Your task to perform on an android device: Open Yahoo.com Image 0: 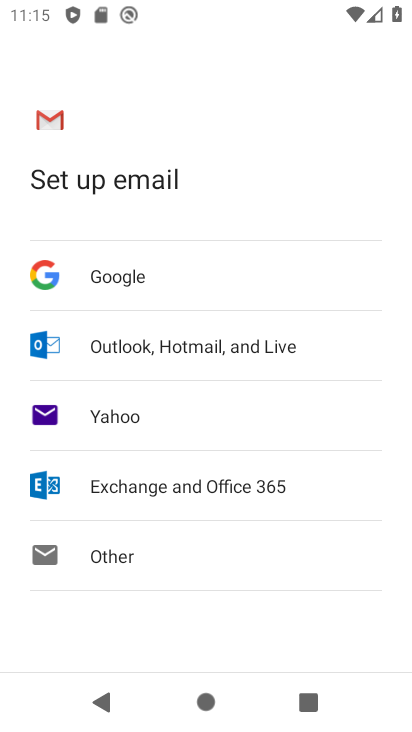
Step 0: press back button
Your task to perform on an android device: Open Yahoo.com Image 1: 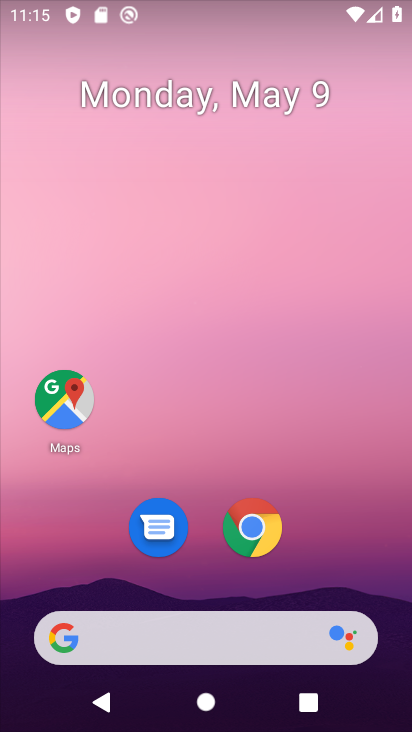
Step 1: click (267, 534)
Your task to perform on an android device: Open Yahoo.com Image 2: 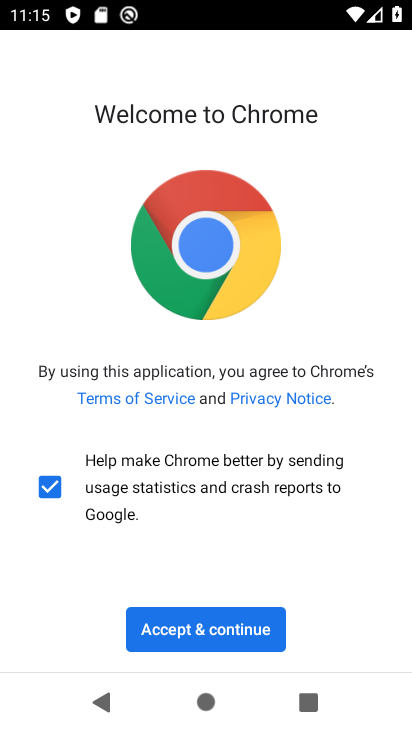
Step 2: click (219, 646)
Your task to perform on an android device: Open Yahoo.com Image 3: 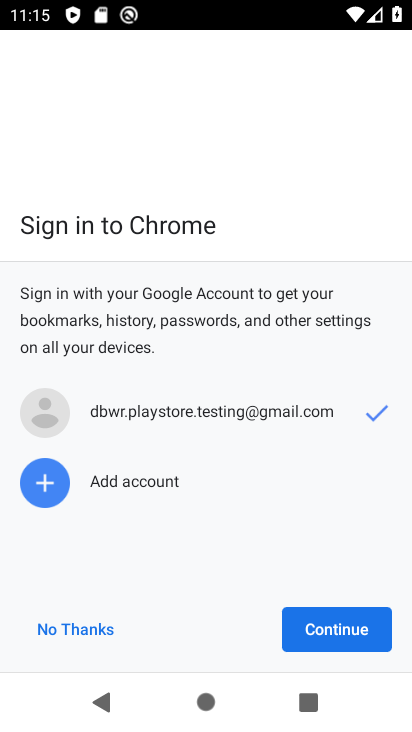
Step 3: click (389, 628)
Your task to perform on an android device: Open Yahoo.com Image 4: 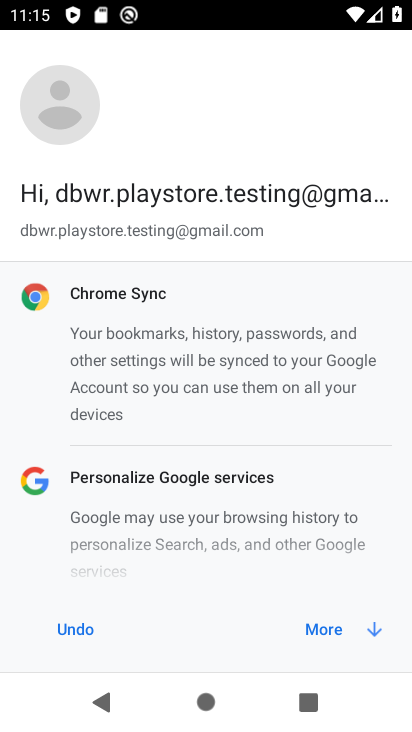
Step 4: click (370, 625)
Your task to perform on an android device: Open Yahoo.com Image 5: 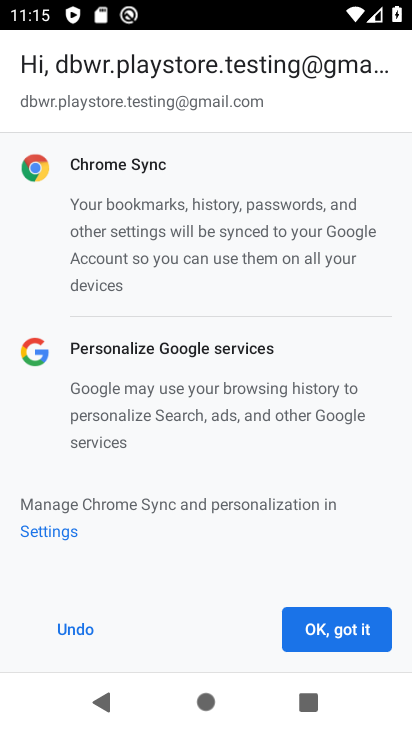
Step 5: click (341, 629)
Your task to perform on an android device: Open Yahoo.com Image 6: 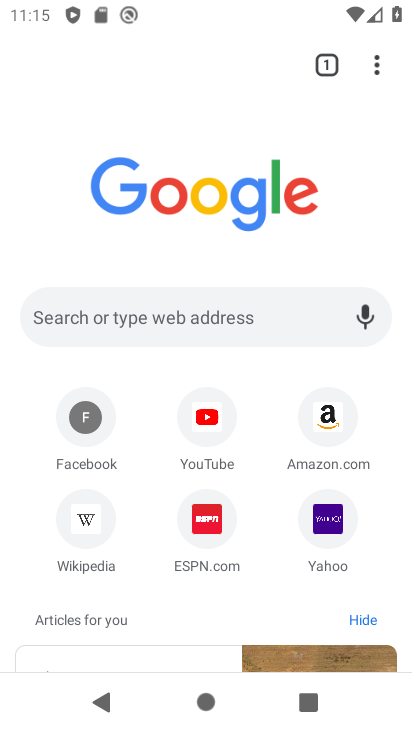
Step 6: click (320, 523)
Your task to perform on an android device: Open Yahoo.com Image 7: 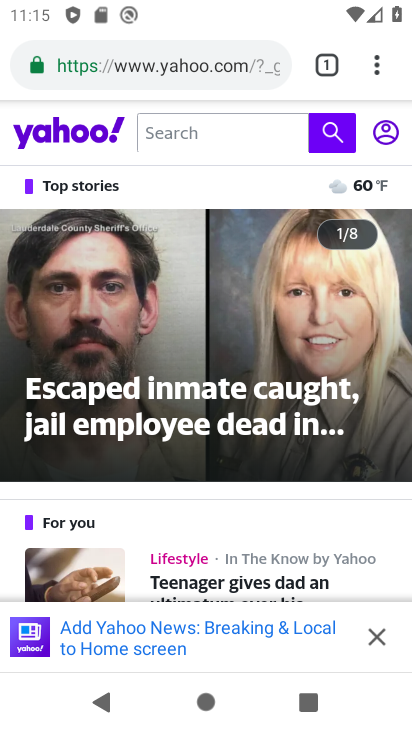
Step 7: task complete